Your task to perform on an android device: uninstall "Gmail" Image 0: 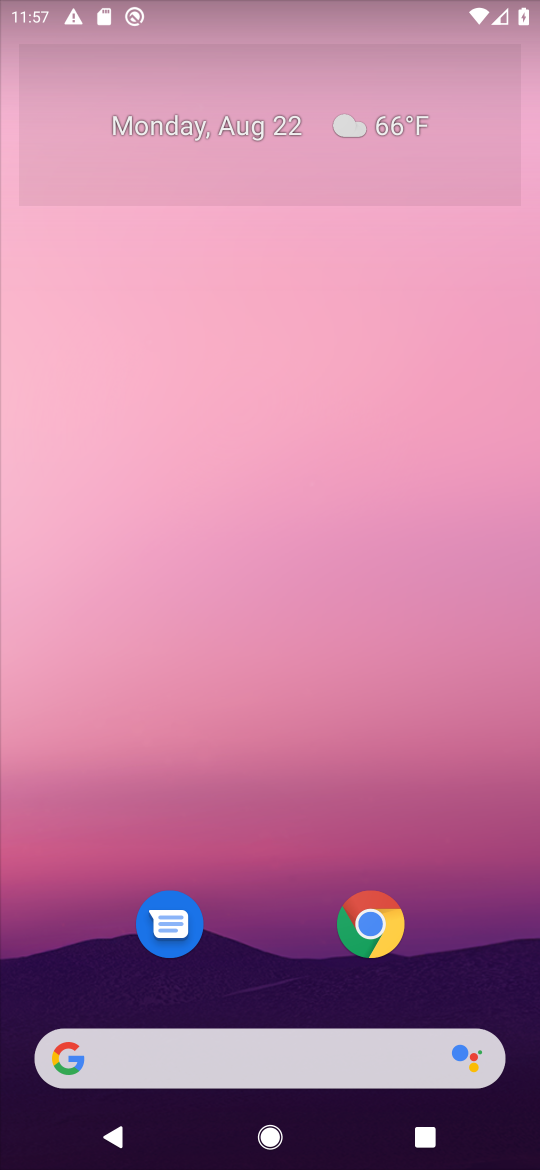
Step 0: press home button
Your task to perform on an android device: uninstall "Gmail" Image 1: 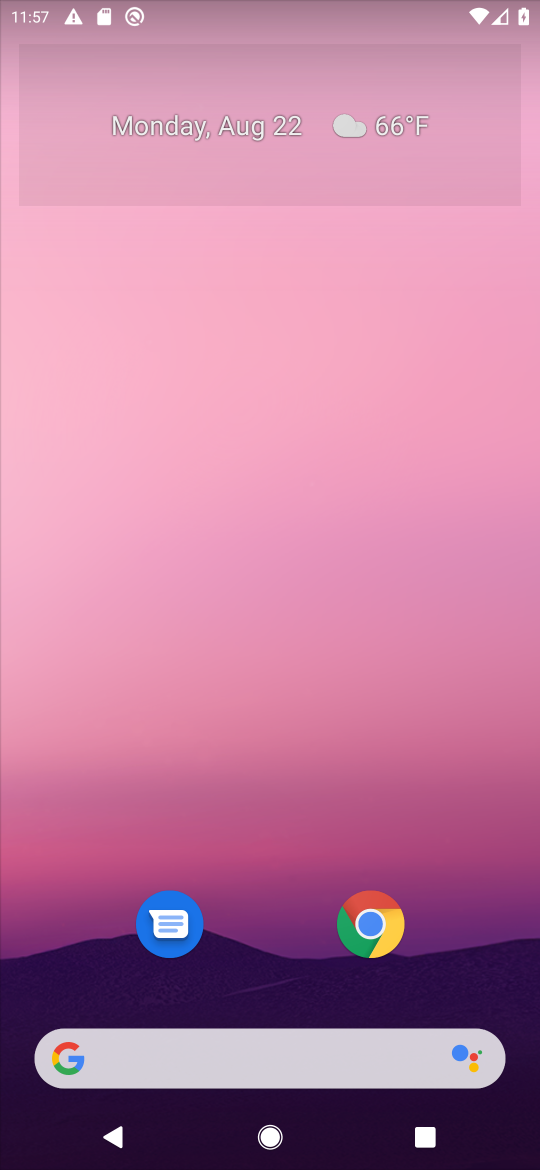
Step 1: drag from (474, 819) to (473, 114)
Your task to perform on an android device: uninstall "Gmail" Image 2: 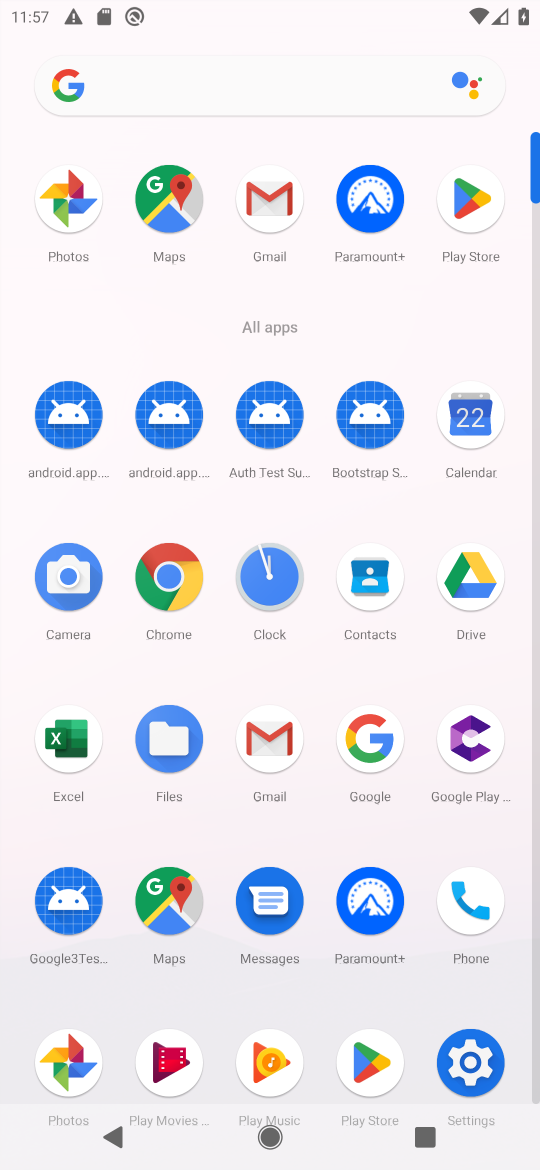
Step 2: click (474, 210)
Your task to perform on an android device: uninstall "Gmail" Image 3: 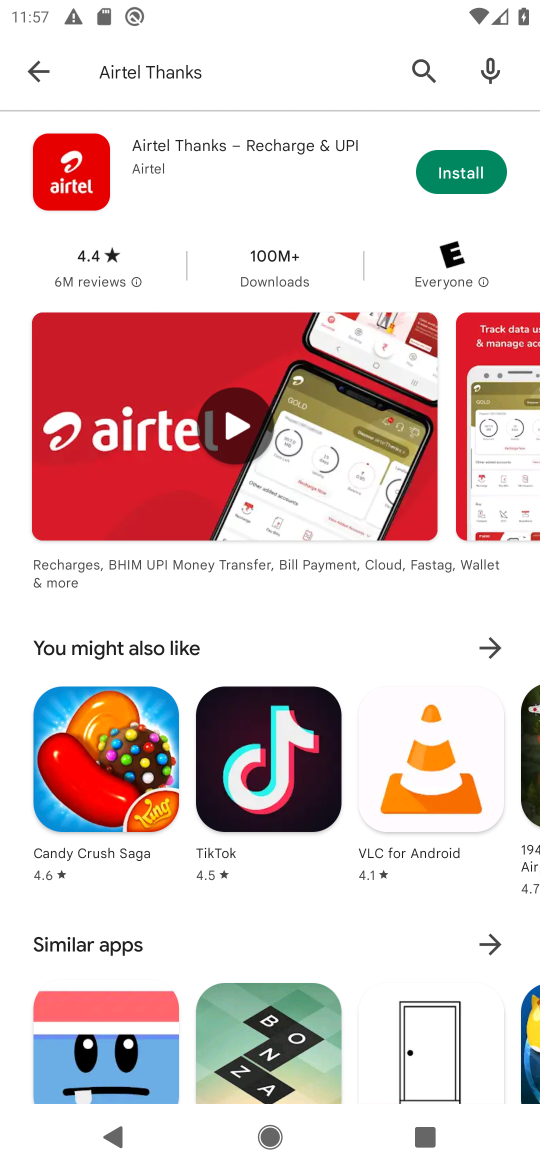
Step 3: press back button
Your task to perform on an android device: uninstall "Gmail" Image 4: 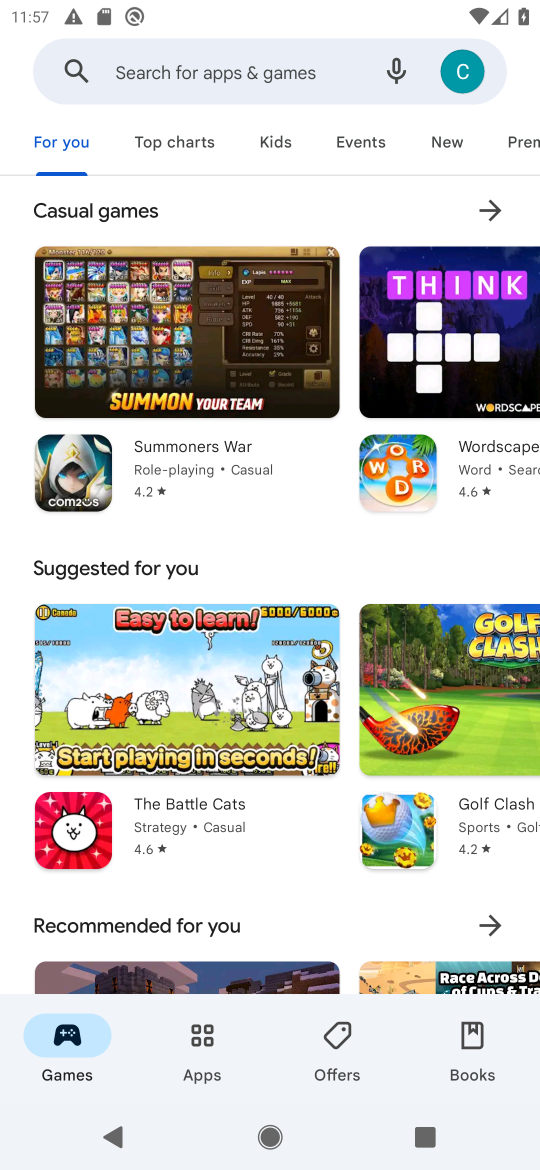
Step 4: click (204, 75)
Your task to perform on an android device: uninstall "Gmail" Image 5: 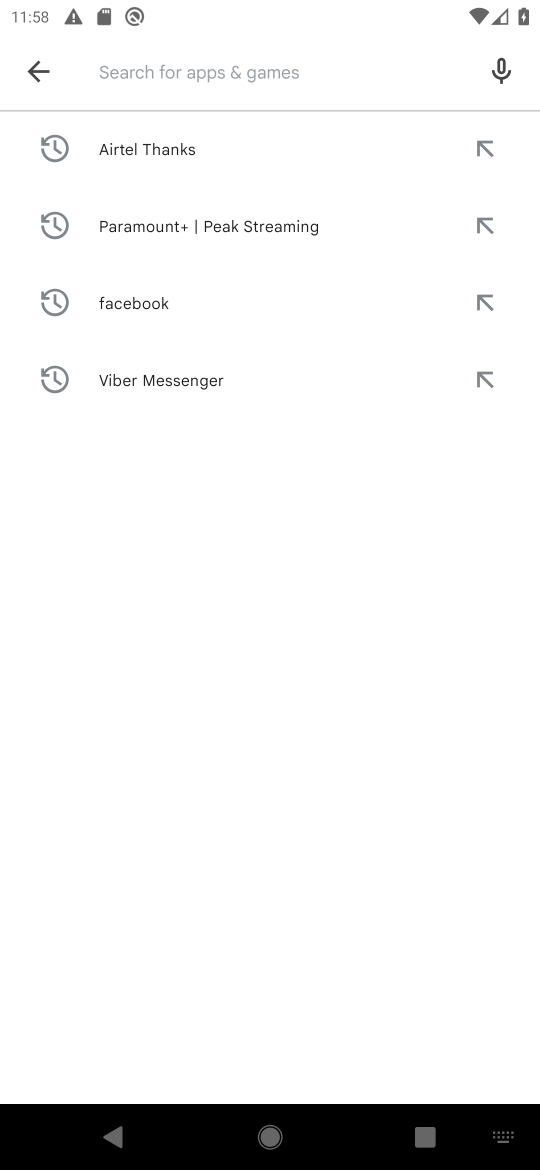
Step 5: type "Gmail"
Your task to perform on an android device: uninstall "Gmail" Image 6: 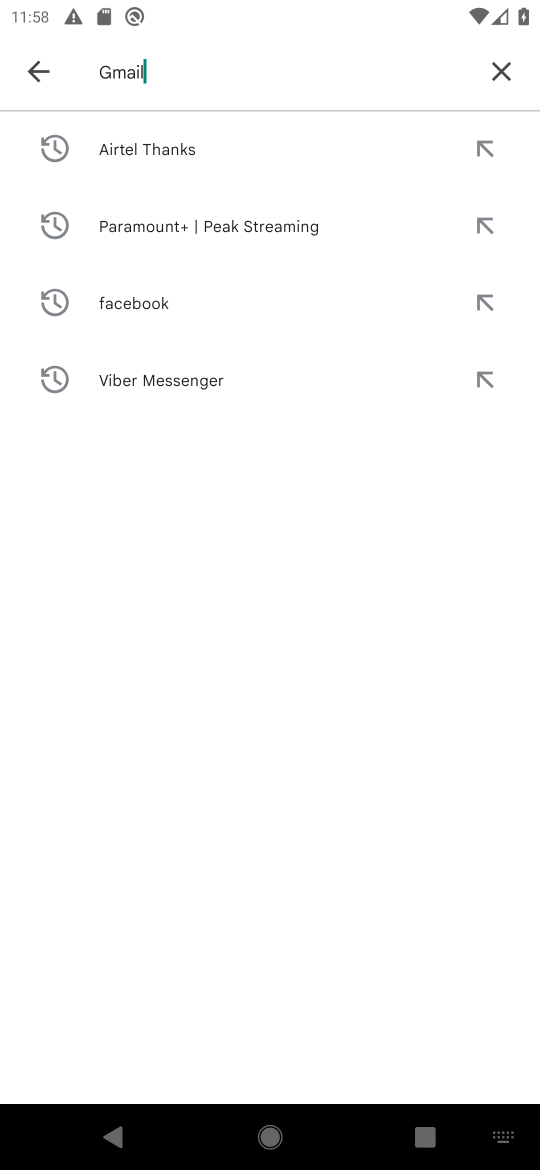
Step 6: press enter
Your task to perform on an android device: uninstall "Gmail" Image 7: 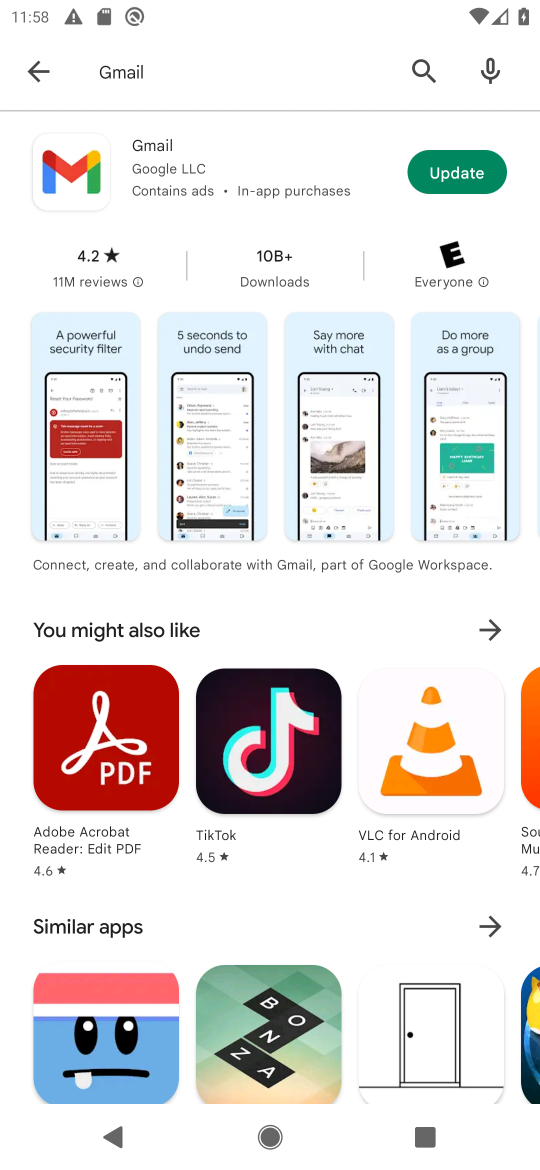
Step 7: task complete